Your task to perform on an android device: Open notification settings Image 0: 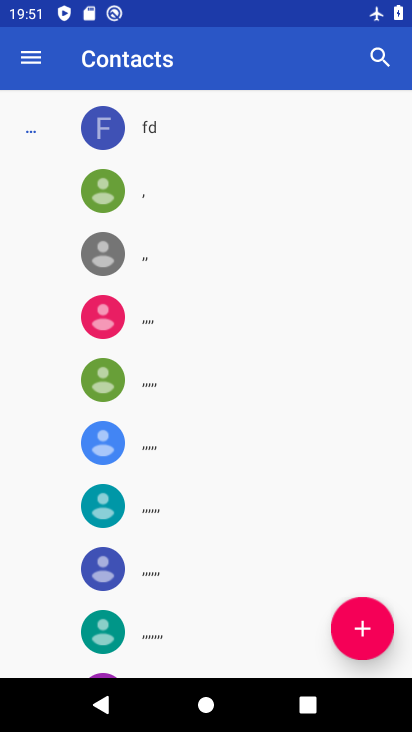
Step 0: press home button
Your task to perform on an android device: Open notification settings Image 1: 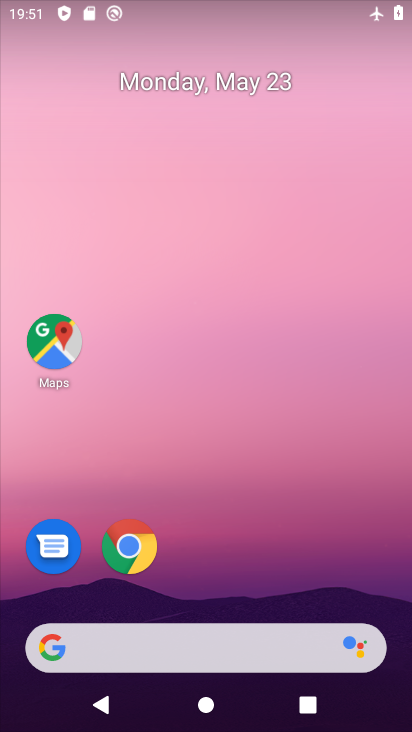
Step 1: drag from (388, 595) to (388, 330)
Your task to perform on an android device: Open notification settings Image 2: 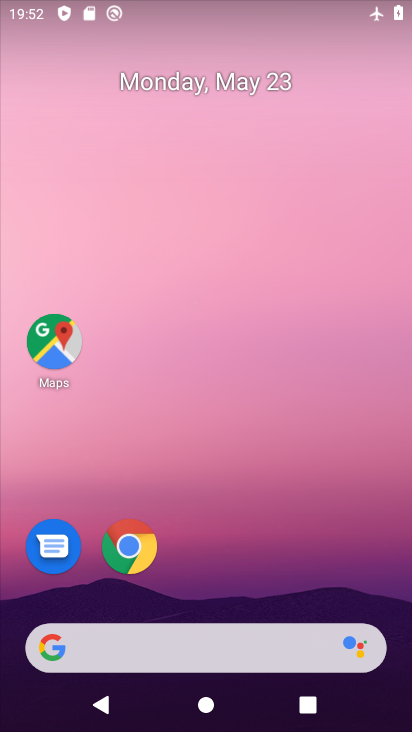
Step 2: drag from (391, 589) to (395, 322)
Your task to perform on an android device: Open notification settings Image 3: 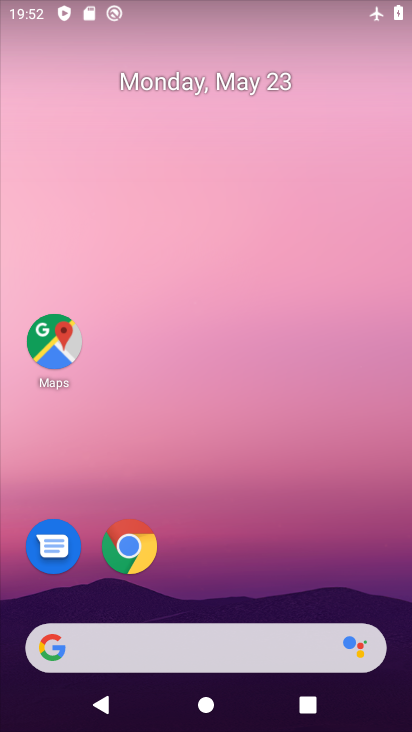
Step 3: drag from (394, 553) to (386, 72)
Your task to perform on an android device: Open notification settings Image 4: 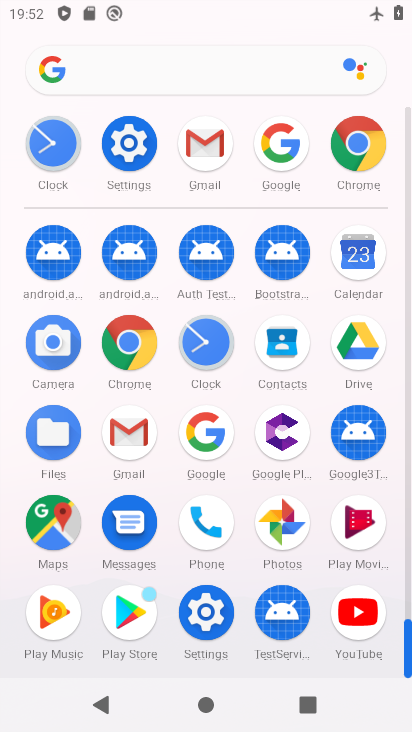
Step 4: click (198, 628)
Your task to perform on an android device: Open notification settings Image 5: 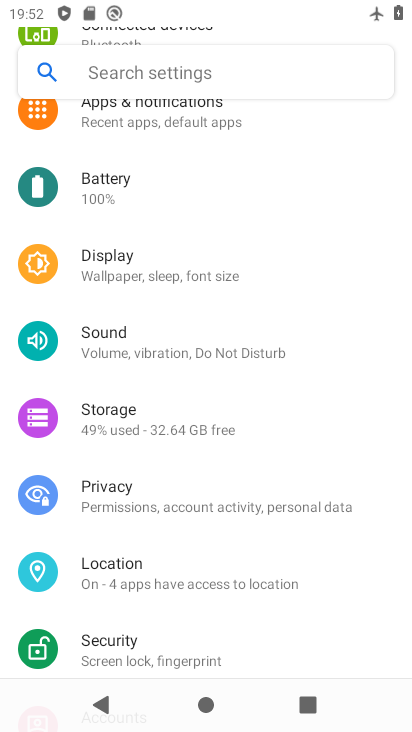
Step 5: drag from (356, 629) to (368, 475)
Your task to perform on an android device: Open notification settings Image 6: 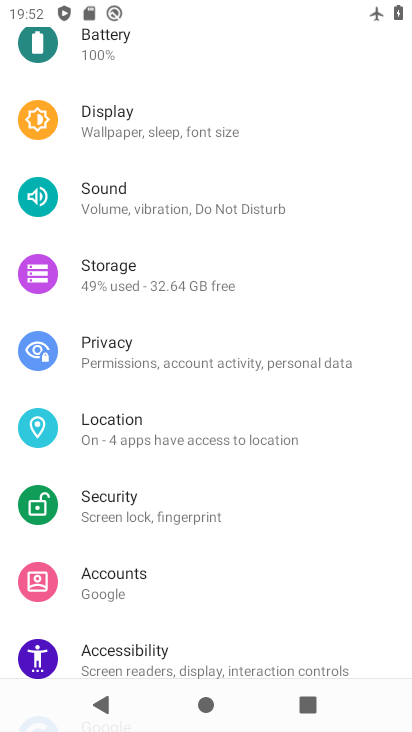
Step 6: drag from (369, 642) to (369, 512)
Your task to perform on an android device: Open notification settings Image 7: 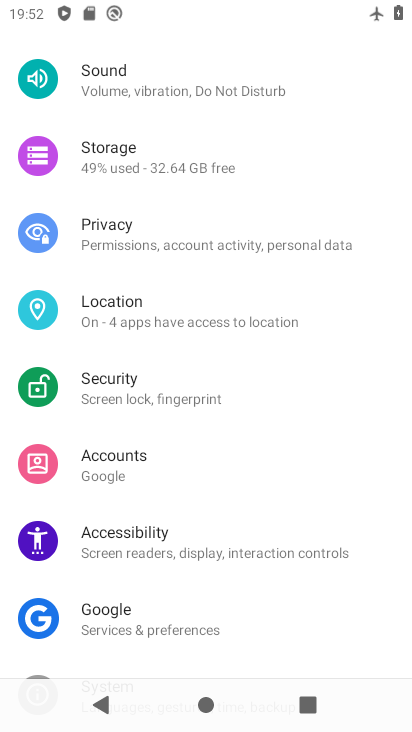
Step 7: drag from (356, 646) to (365, 511)
Your task to perform on an android device: Open notification settings Image 8: 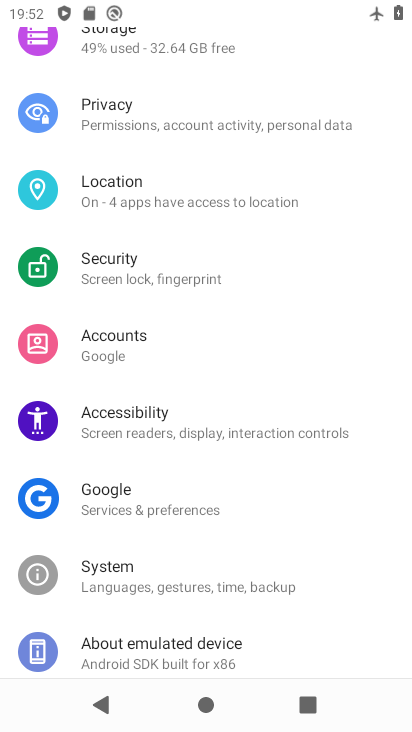
Step 8: drag from (379, 460) to (366, 555)
Your task to perform on an android device: Open notification settings Image 9: 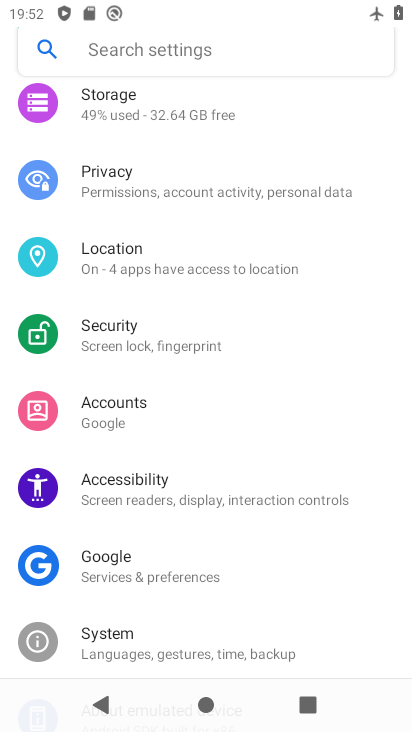
Step 9: drag from (357, 410) to (344, 520)
Your task to perform on an android device: Open notification settings Image 10: 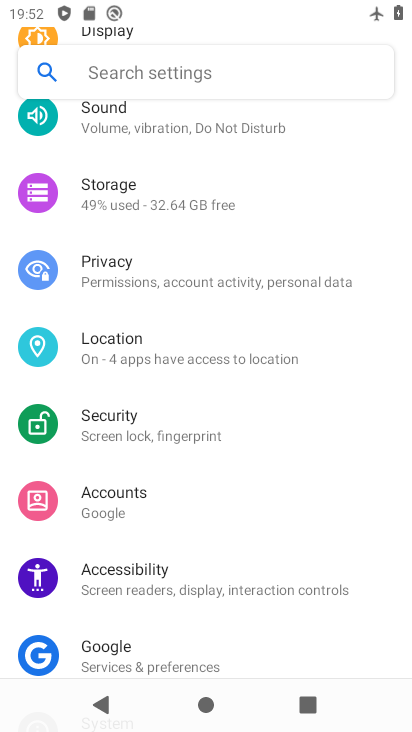
Step 10: drag from (352, 377) to (345, 493)
Your task to perform on an android device: Open notification settings Image 11: 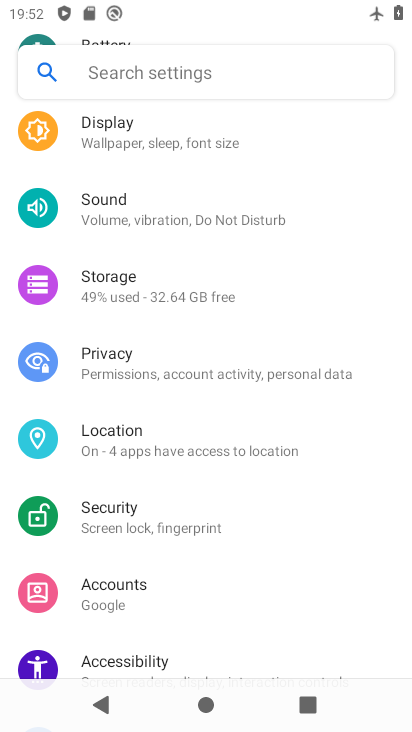
Step 11: drag from (355, 357) to (344, 440)
Your task to perform on an android device: Open notification settings Image 12: 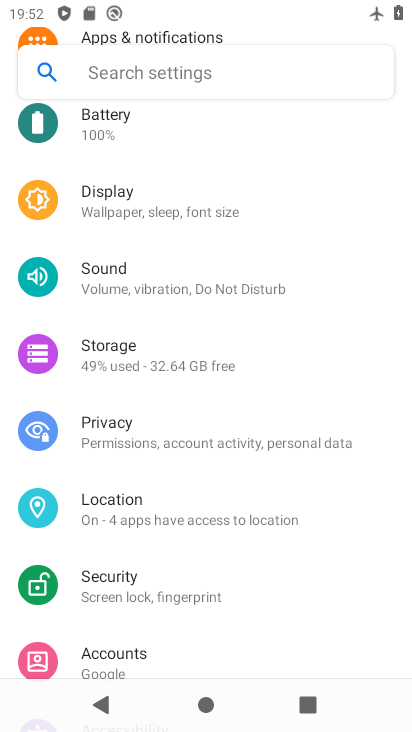
Step 12: drag from (353, 322) to (342, 428)
Your task to perform on an android device: Open notification settings Image 13: 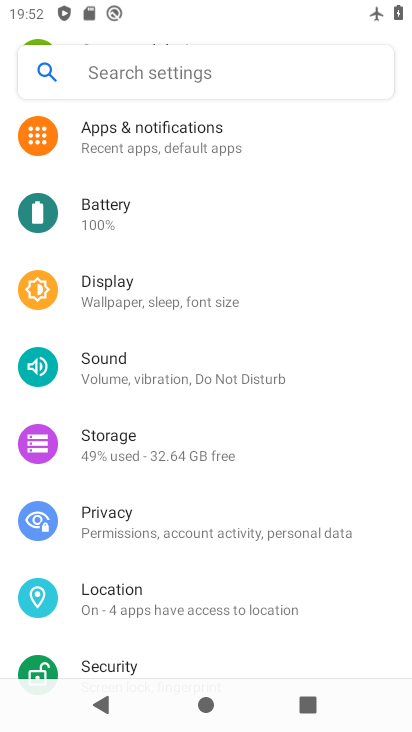
Step 13: drag from (350, 344) to (347, 514)
Your task to perform on an android device: Open notification settings Image 14: 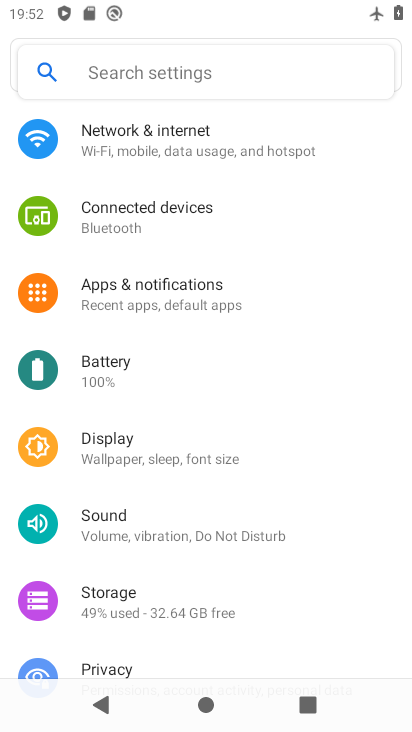
Step 14: drag from (351, 328) to (351, 472)
Your task to perform on an android device: Open notification settings Image 15: 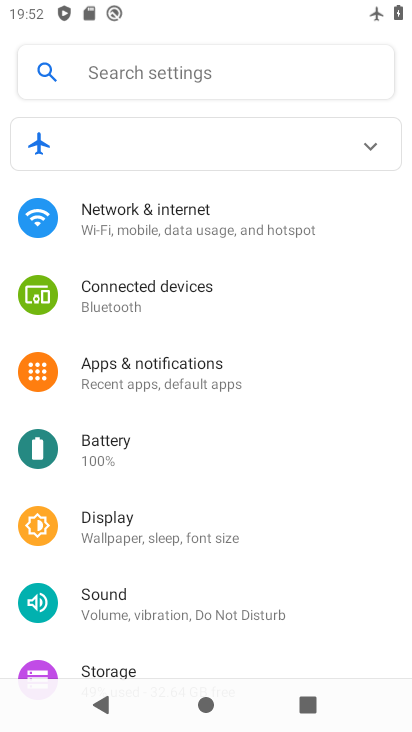
Step 15: click (214, 375)
Your task to perform on an android device: Open notification settings Image 16: 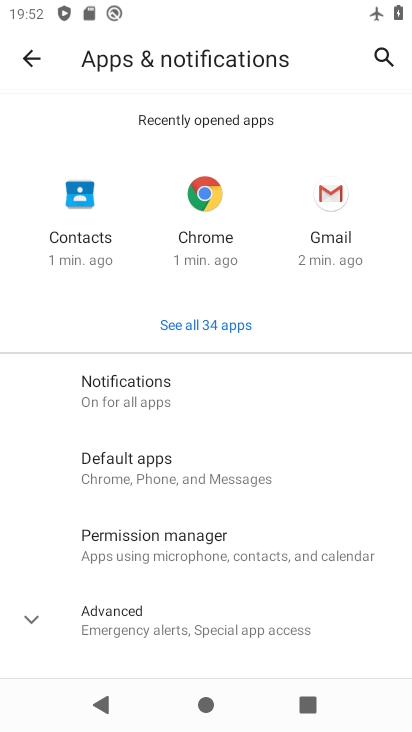
Step 16: click (157, 398)
Your task to perform on an android device: Open notification settings Image 17: 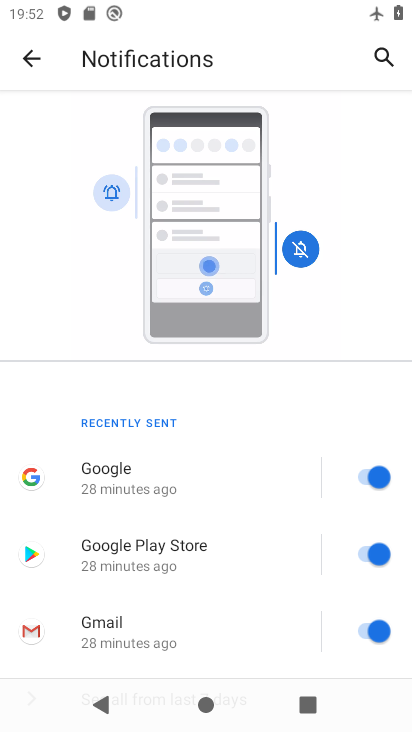
Step 17: task complete